Your task to perform on an android device: open wifi settings Image 0: 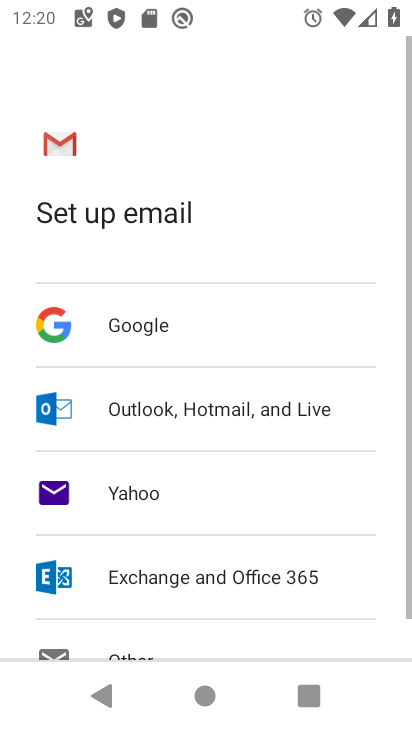
Step 0: press home button
Your task to perform on an android device: open wifi settings Image 1: 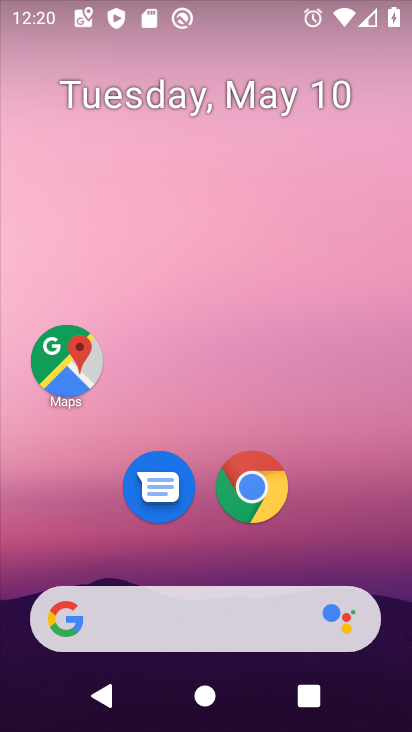
Step 1: drag from (324, 561) to (322, 26)
Your task to perform on an android device: open wifi settings Image 2: 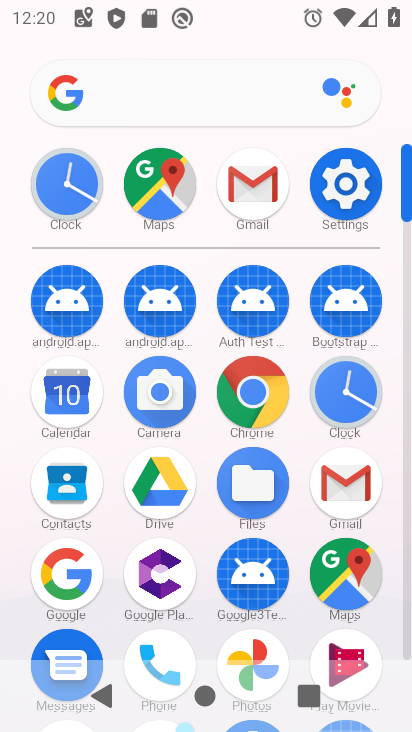
Step 2: click (353, 173)
Your task to perform on an android device: open wifi settings Image 3: 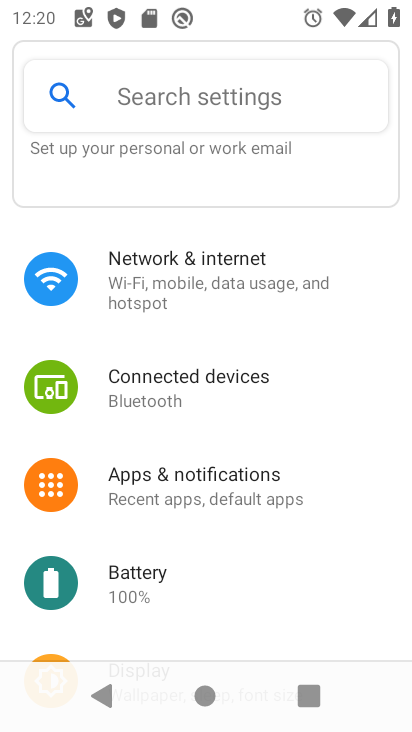
Step 3: drag from (153, 195) to (155, 258)
Your task to perform on an android device: open wifi settings Image 4: 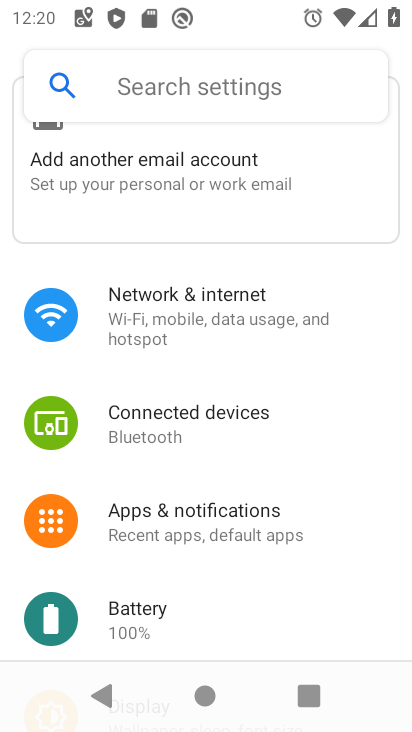
Step 4: click (155, 280)
Your task to perform on an android device: open wifi settings Image 5: 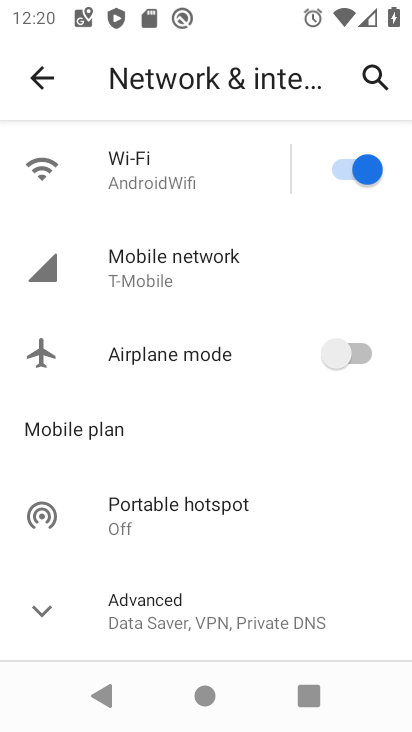
Step 5: click (139, 141)
Your task to perform on an android device: open wifi settings Image 6: 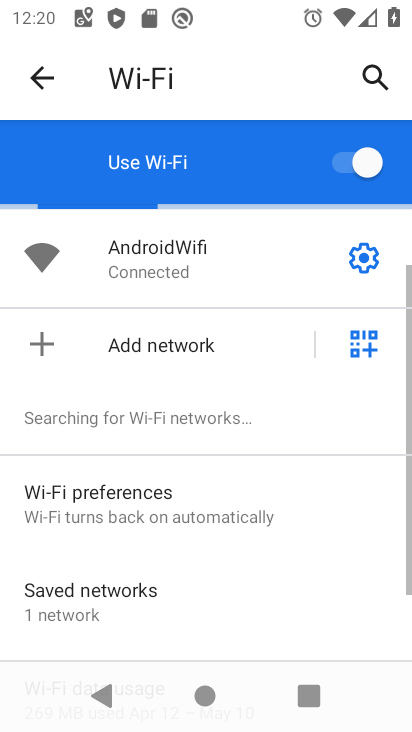
Step 6: task complete